Your task to perform on an android device: Open Google Chrome and open the bookmarks view Image 0: 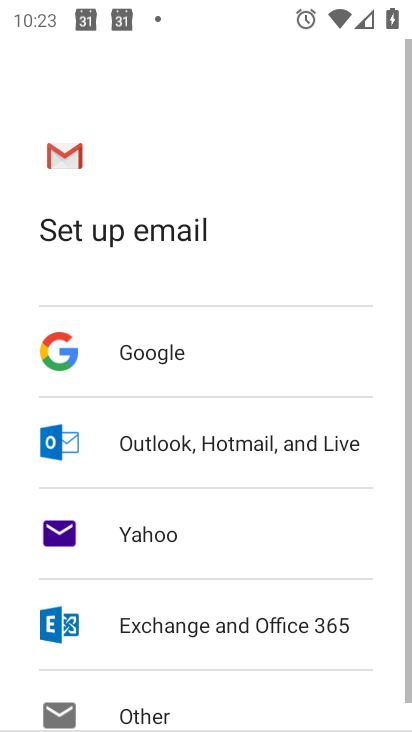
Step 0: press home button
Your task to perform on an android device: Open Google Chrome and open the bookmarks view Image 1: 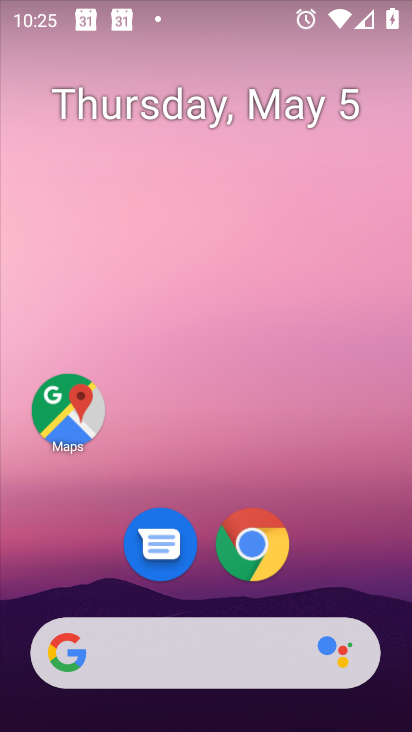
Step 1: task complete